Your task to perform on an android device: When is my next meeting? Image 0: 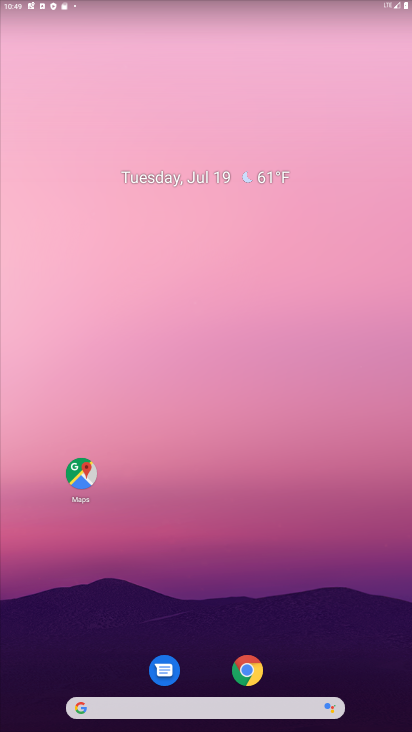
Step 0: drag from (196, 729) to (316, 5)
Your task to perform on an android device: When is my next meeting? Image 1: 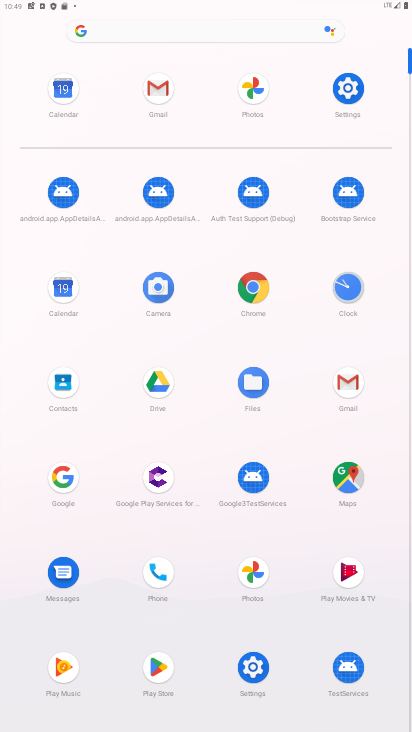
Step 1: click (64, 91)
Your task to perform on an android device: When is my next meeting? Image 2: 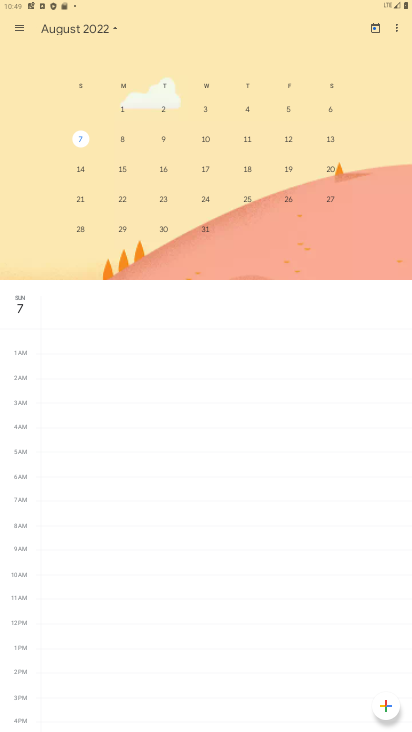
Step 2: click (21, 29)
Your task to perform on an android device: When is my next meeting? Image 3: 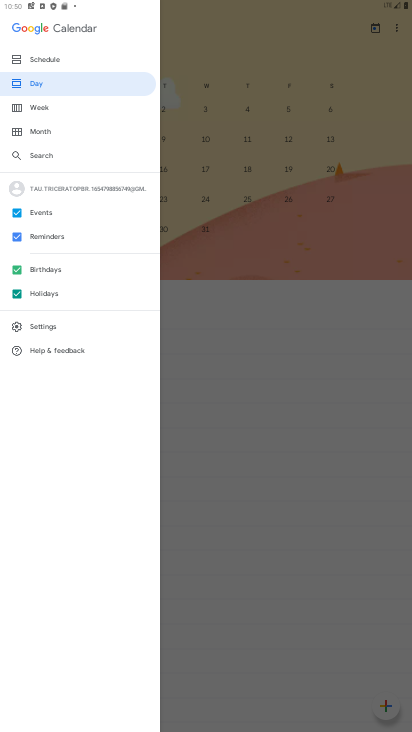
Step 3: click (286, 339)
Your task to perform on an android device: When is my next meeting? Image 4: 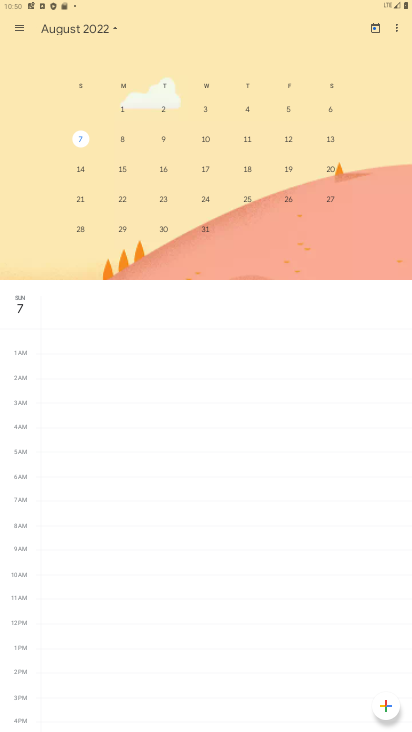
Step 4: drag from (92, 130) to (400, 237)
Your task to perform on an android device: When is my next meeting? Image 5: 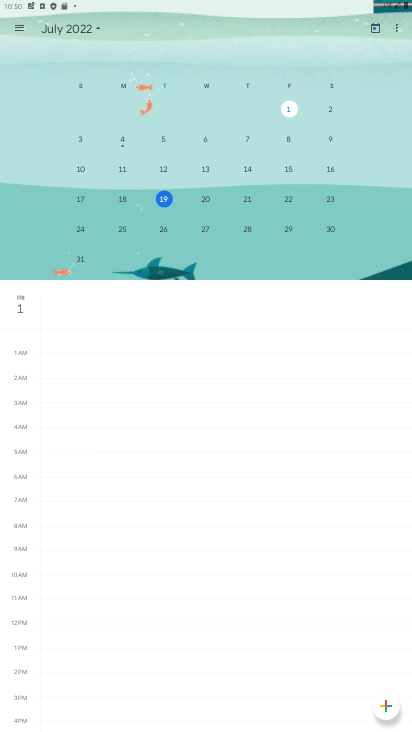
Step 5: click (376, 21)
Your task to perform on an android device: When is my next meeting? Image 6: 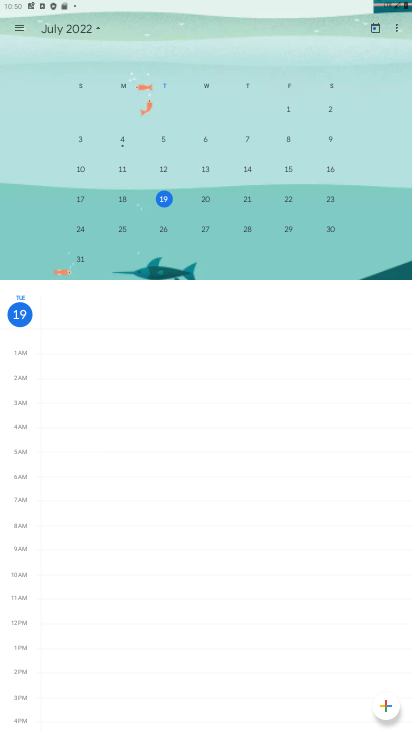
Step 6: task complete